Your task to perform on an android device: Open Chrome and go to the settings page Image 0: 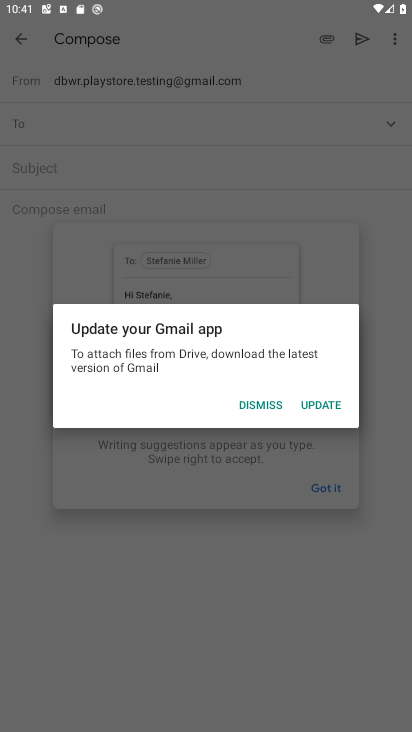
Step 0: press home button
Your task to perform on an android device: Open Chrome and go to the settings page Image 1: 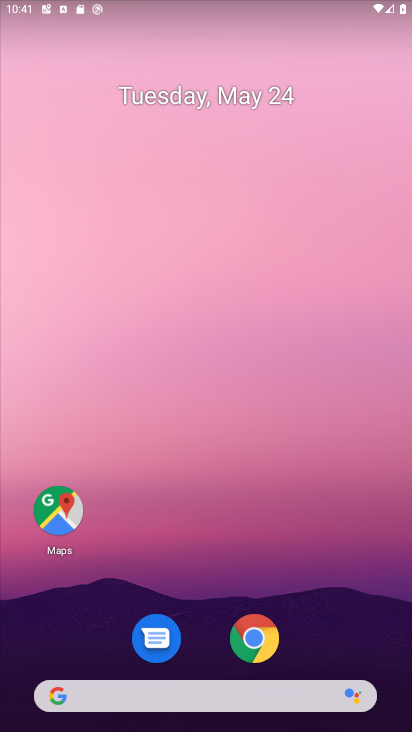
Step 1: drag from (204, 726) to (184, 81)
Your task to perform on an android device: Open Chrome and go to the settings page Image 2: 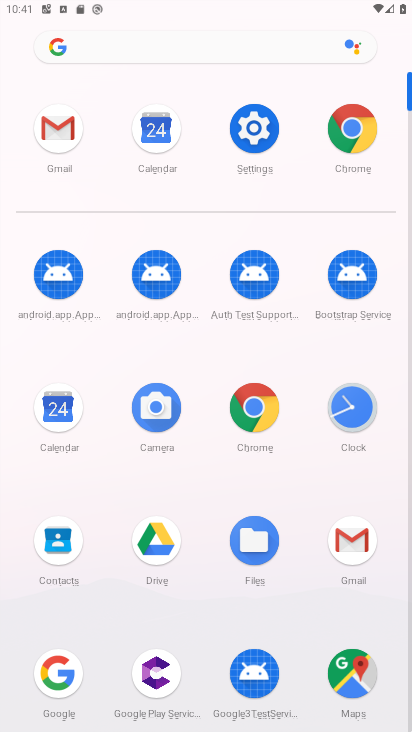
Step 2: click (359, 137)
Your task to perform on an android device: Open Chrome and go to the settings page Image 3: 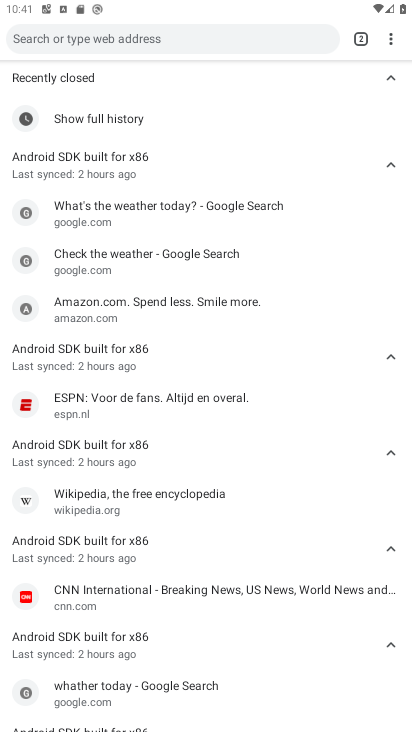
Step 3: click (398, 40)
Your task to perform on an android device: Open Chrome and go to the settings page Image 4: 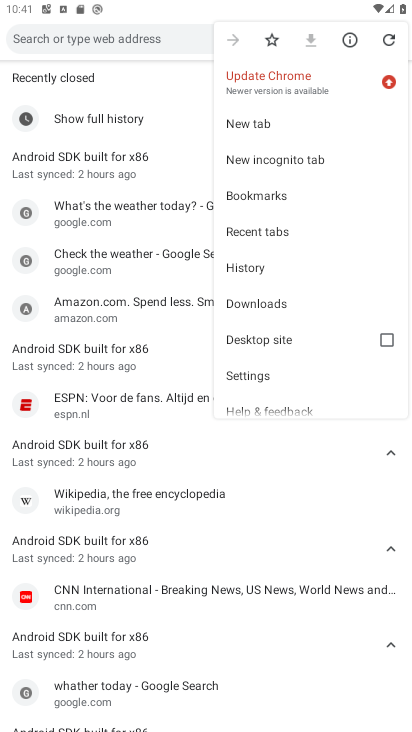
Step 4: click (268, 378)
Your task to perform on an android device: Open Chrome and go to the settings page Image 5: 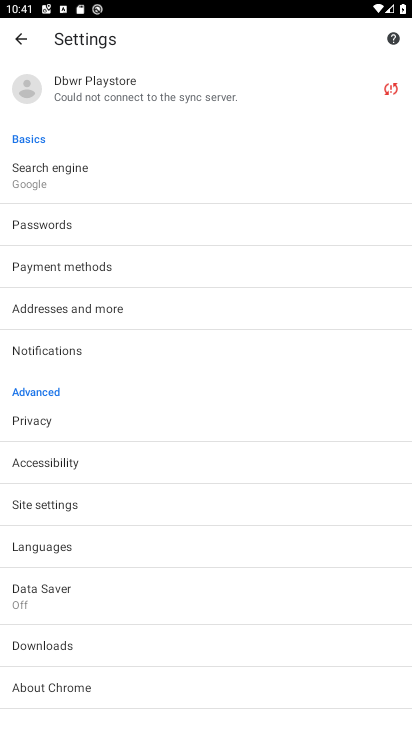
Step 5: task complete